Your task to perform on an android device: turn off wifi Image 0: 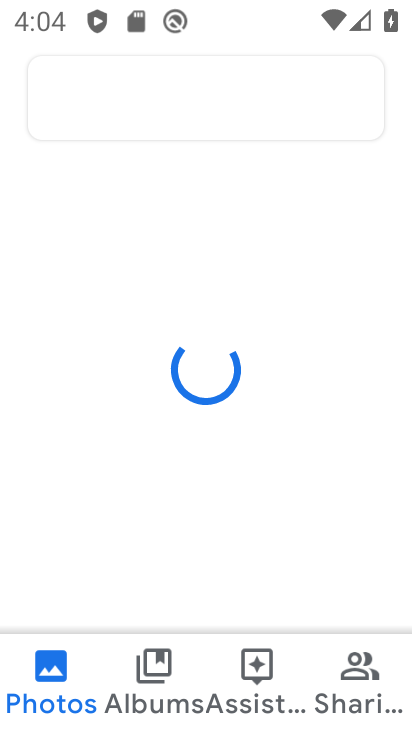
Step 0: press back button
Your task to perform on an android device: turn off wifi Image 1: 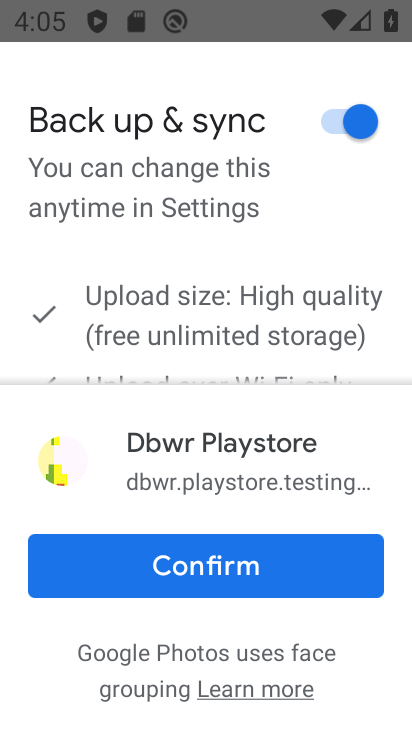
Step 1: press home button
Your task to perform on an android device: turn off wifi Image 2: 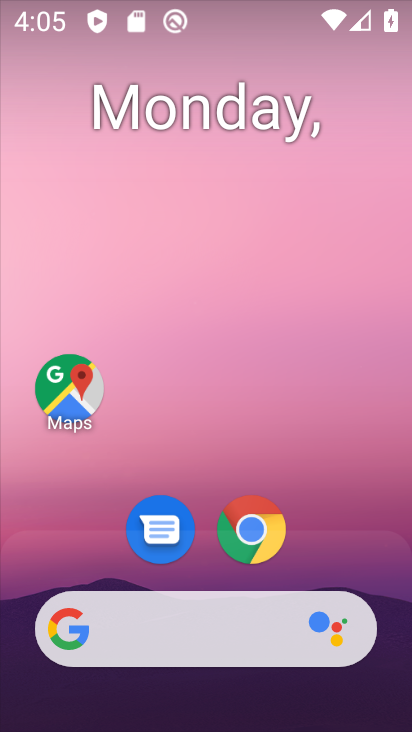
Step 2: drag from (332, 570) to (346, 1)
Your task to perform on an android device: turn off wifi Image 3: 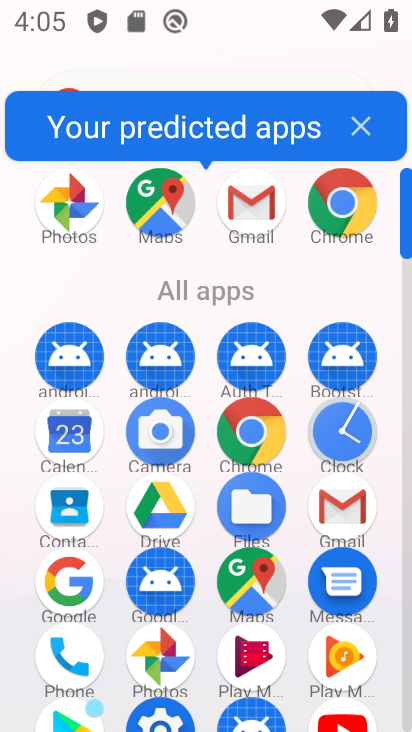
Step 3: drag from (298, 499) to (298, 141)
Your task to perform on an android device: turn off wifi Image 4: 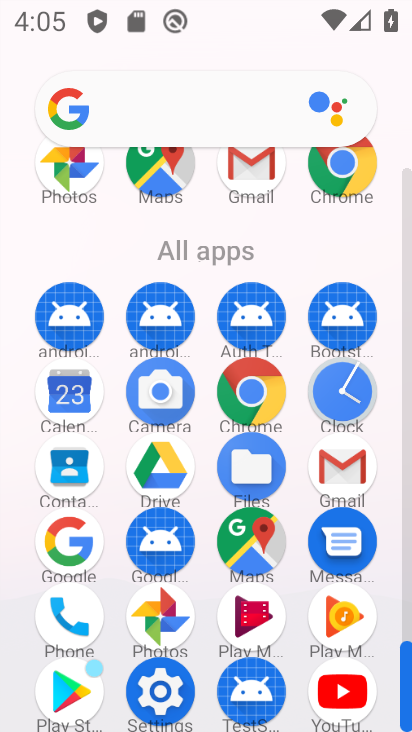
Step 4: click (155, 695)
Your task to perform on an android device: turn off wifi Image 5: 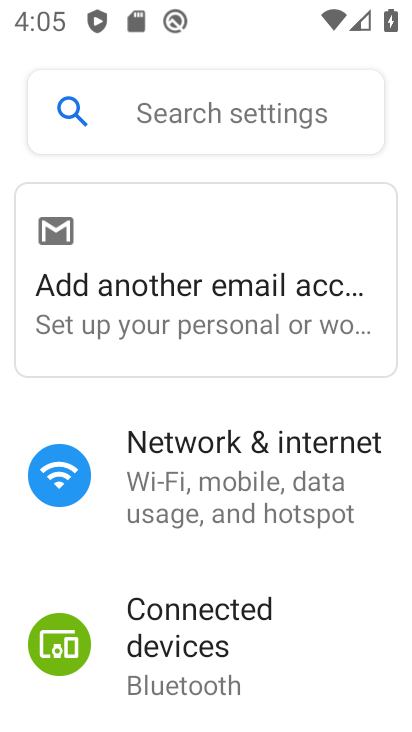
Step 5: click (237, 490)
Your task to perform on an android device: turn off wifi Image 6: 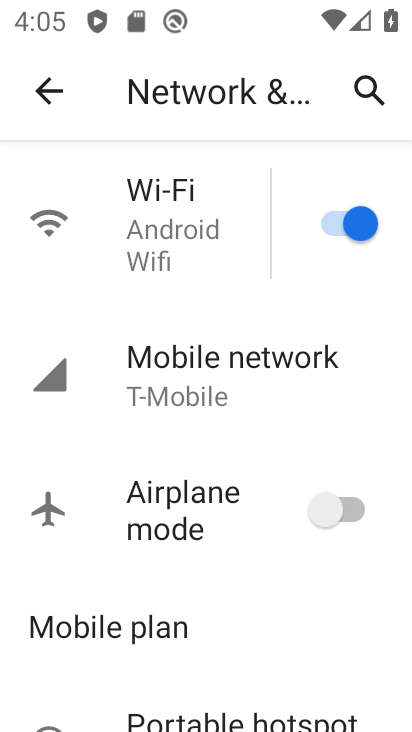
Step 6: click (329, 219)
Your task to perform on an android device: turn off wifi Image 7: 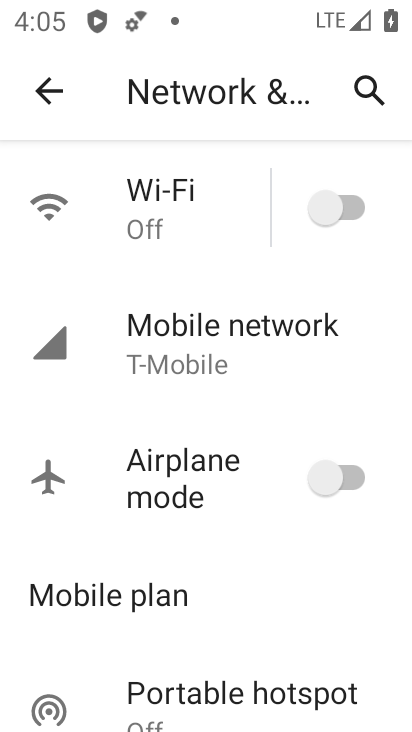
Step 7: task complete